Your task to perform on an android device: Do I have any events today? Image 0: 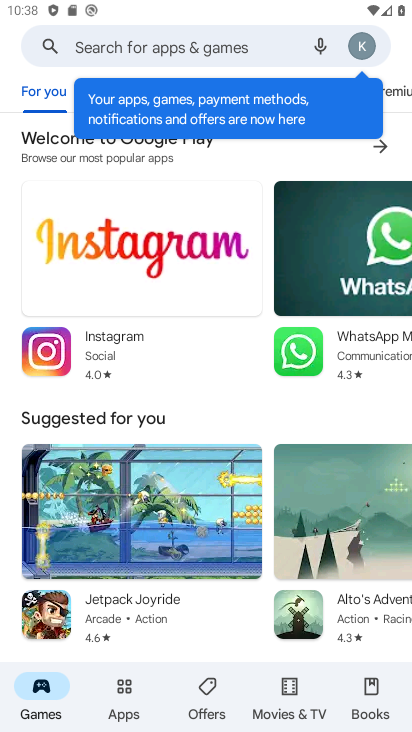
Step 0: press home button
Your task to perform on an android device: Do I have any events today? Image 1: 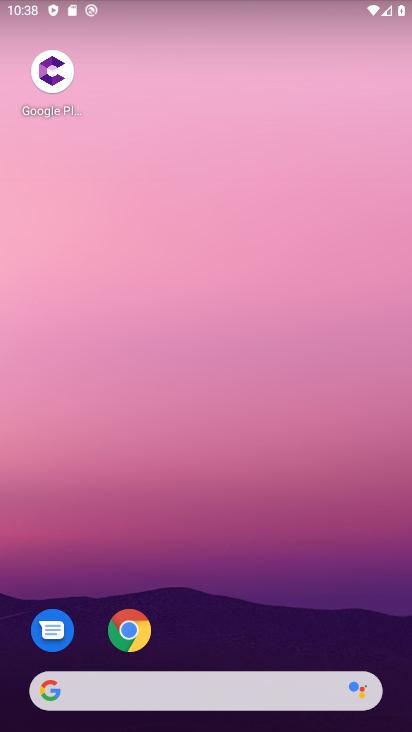
Step 1: drag from (229, 677) to (257, 194)
Your task to perform on an android device: Do I have any events today? Image 2: 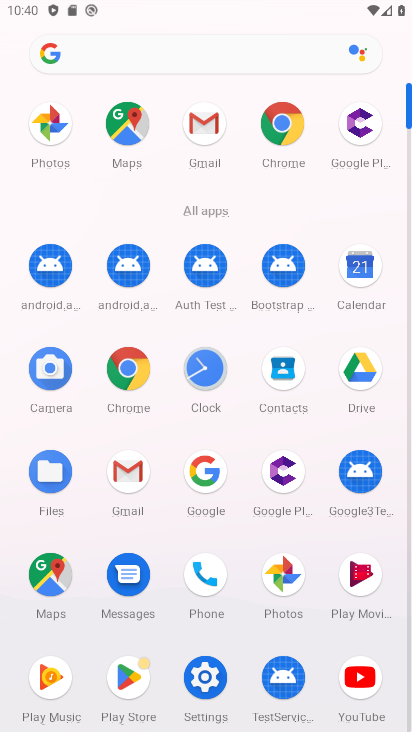
Step 2: click (345, 267)
Your task to perform on an android device: Do I have any events today? Image 3: 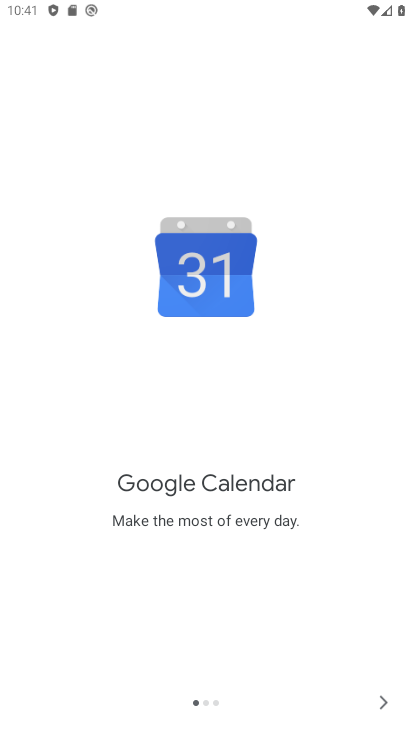
Step 3: click (380, 701)
Your task to perform on an android device: Do I have any events today? Image 4: 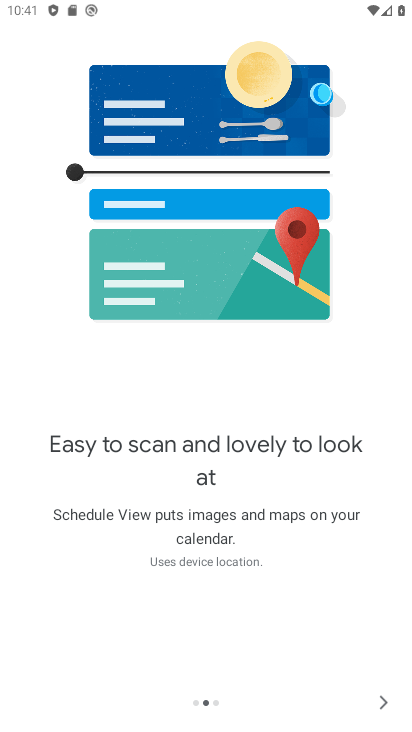
Step 4: click (380, 701)
Your task to perform on an android device: Do I have any events today? Image 5: 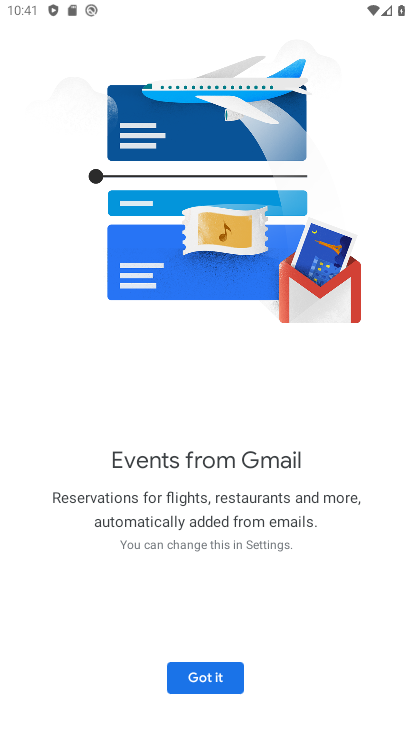
Step 5: click (225, 673)
Your task to perform on an android device: Do I have any events today? Image 6: 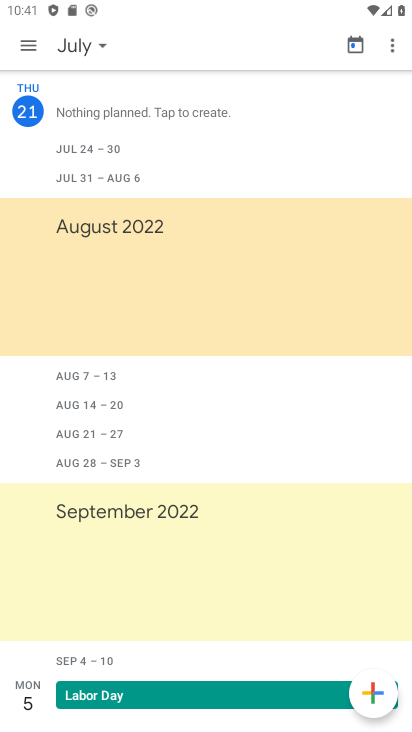
Step 6: click (82, 43)
Your task to perform on an android device: Do I have any events today? Image 7: 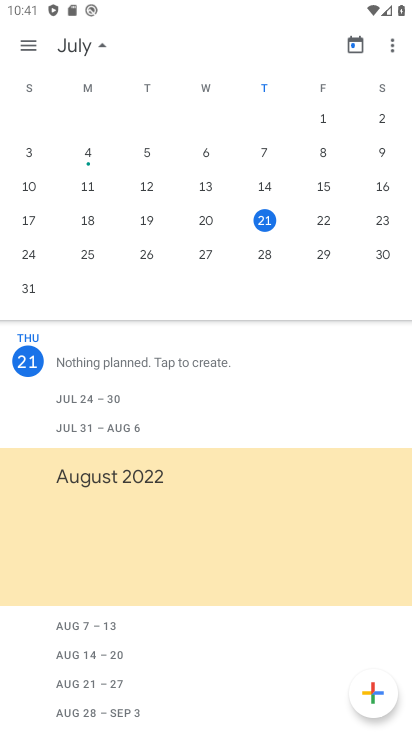
Step 7: task complete